Your task to perform on an android device: What's on my calendar today? Image 0: 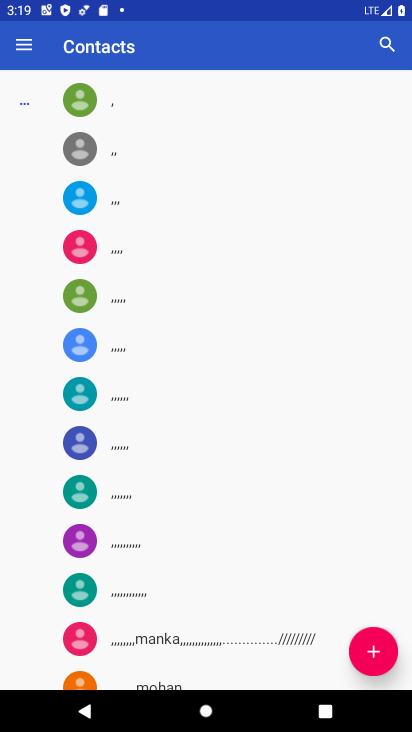
Step 0: press back button
Your task to perform on an android device: What's on my calendar today? Image 1: 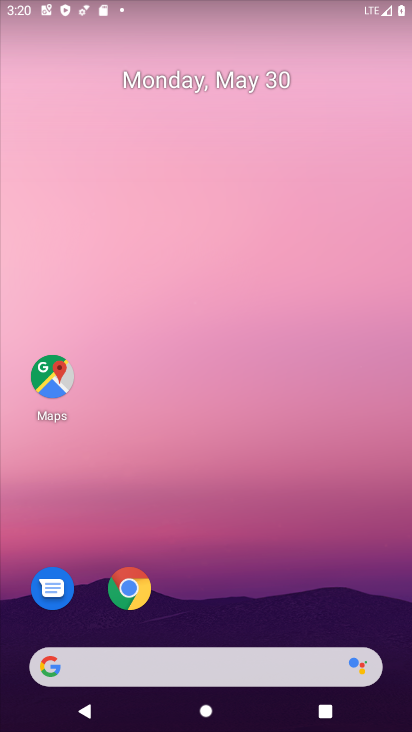
Step 1: drag from (256, 566) to (326, 12)
Your task to perform on an android device: What's on my calendar today? Image 2: 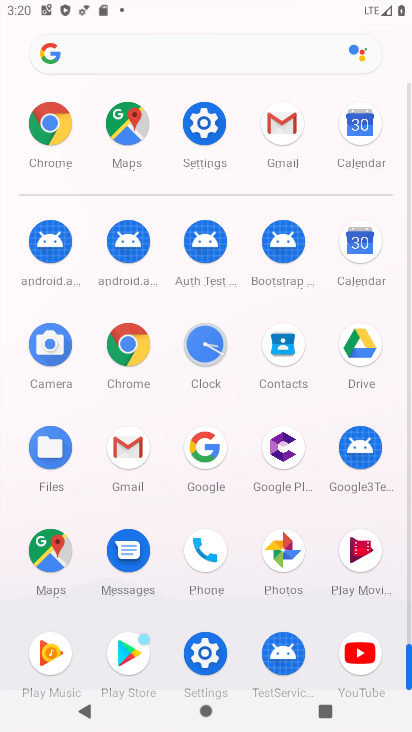
Step 2: drag from (10, 553) to (25, 181)
Your task to perform on an android device: What's on my calendar today? Image 3: 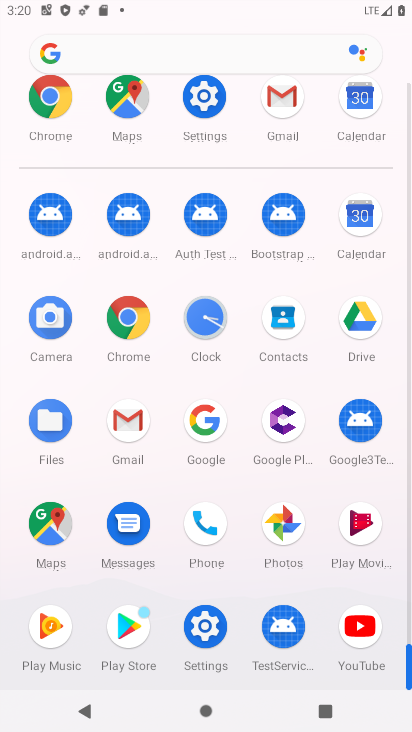
Step 3: click (363, 200)
Your task to perform on an android device: What's on my calendar today? Image 4: 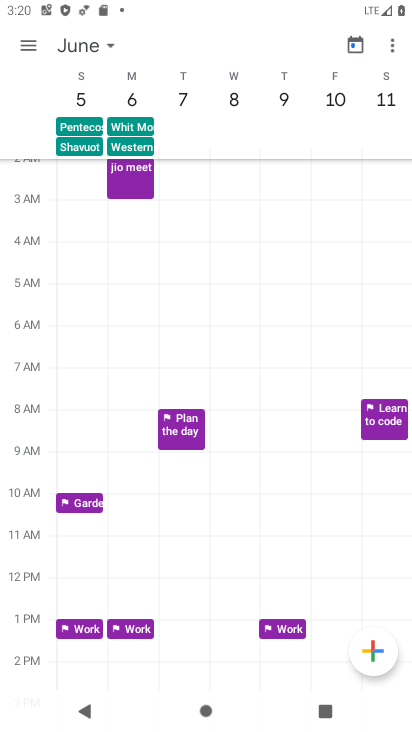
Step 4: click (31, 42)
Your task to perform on an android device: What's on my calendar today? Image 5: 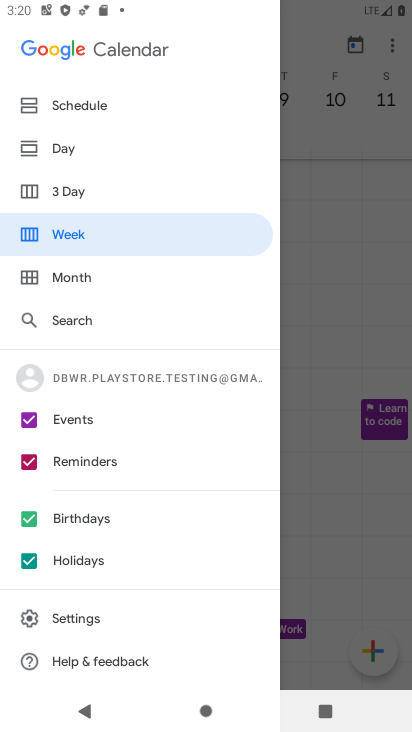
Step 5: drag from (127, 145) to (167, 521)
Your task to perform on an android device: What's on my calendar today? Image 6: 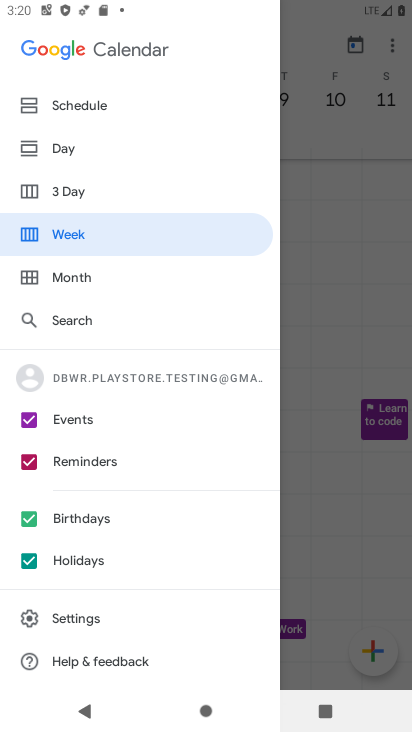
Step 6: click (70, 146)
Your task to perform on an android device: What's on my calendar today? Image 7: 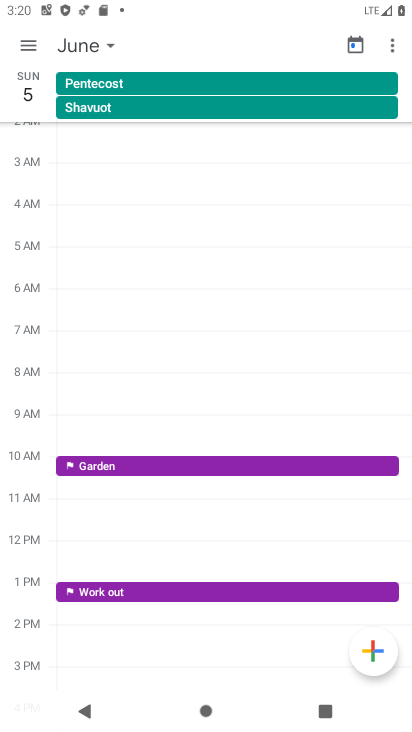
Step 7: click (364, 53)
Your task to perform on an android device: What's on my calendar today? Image 8: 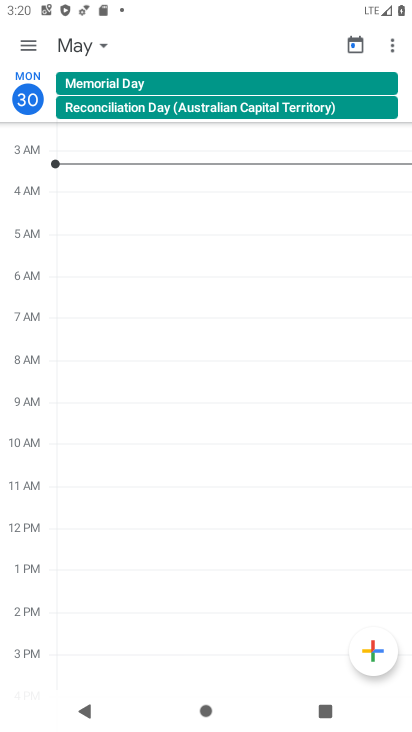
Step 8: task complete